Your task to perform on an android device: delete location history Image 0: 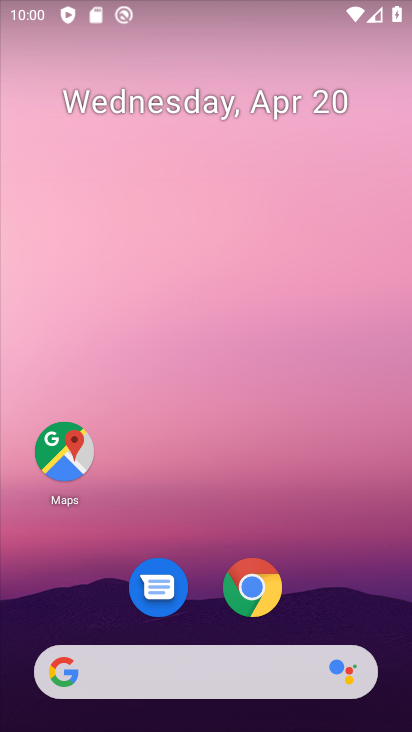
Step 0: click (71, 458)
Your task to perform on an android device: delete location history Image 1: 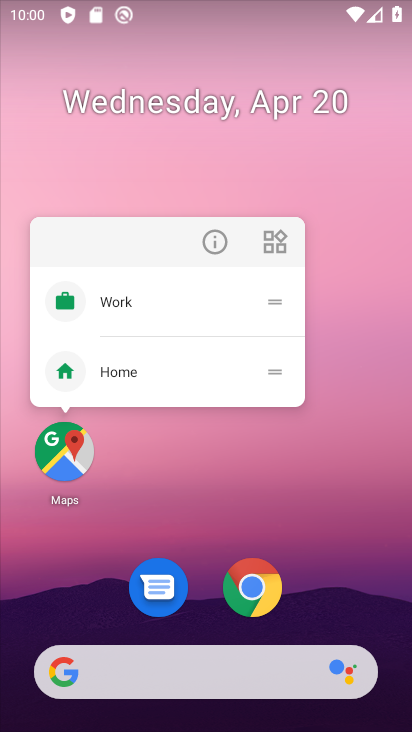
Step 1: click (85, 444)
Your task to perform on an android device: delete location history Image 2: 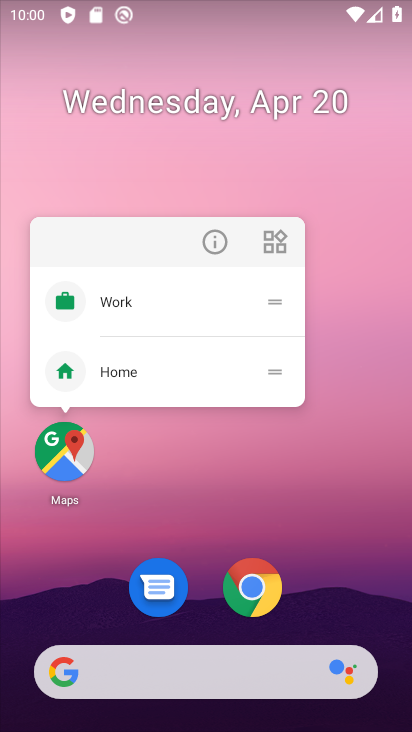
Step 2: click (60, 475)
Your task to perform on an android device: delete location history Image 3: 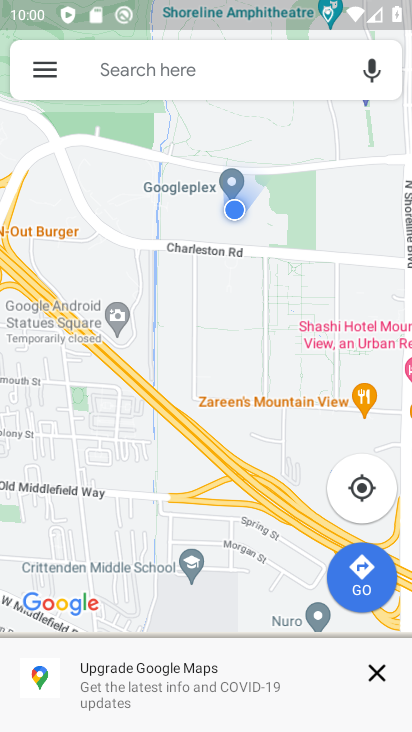
Step 3: click (380, 676)
Your task to perform on an android device: delete location history Image 4: 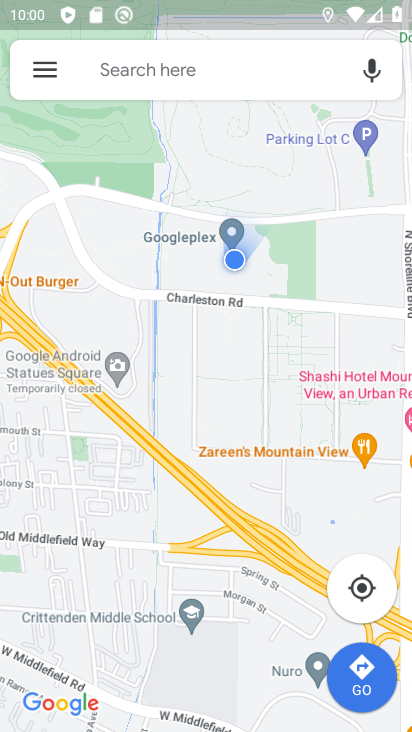
Step 4: click (55, 69)
Your task to perform on an android device: delete location history Image 5: 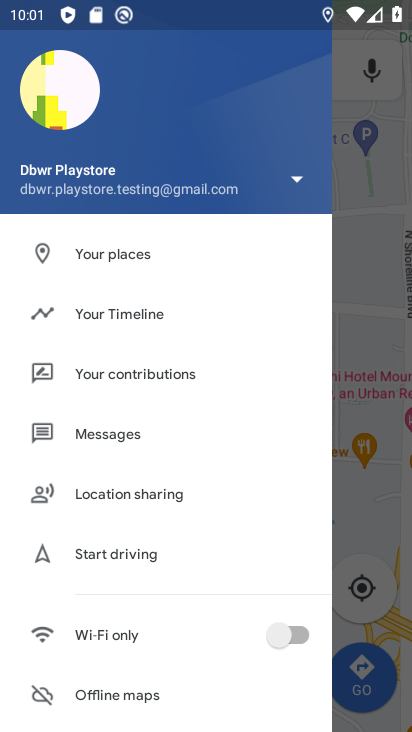
Step 5: drag from (153, 627) to (82, 83)
Your task to perform on an android device: delete location history Image 6: 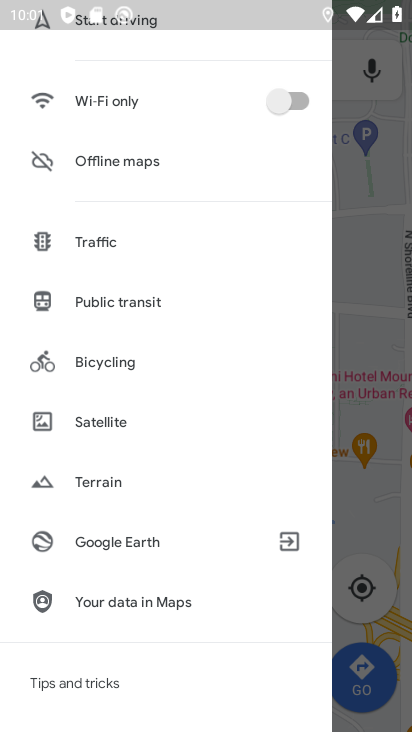
Step 6: drag from (189, 607) to (65, 192)
Your task to perform on an android device: delete location history Image 7: 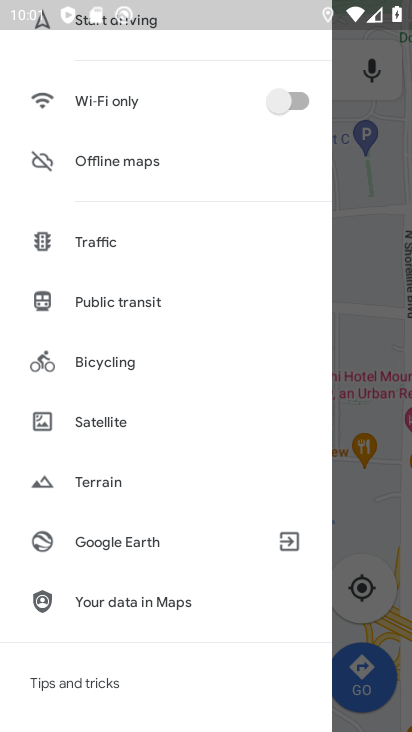
Step 7: drag from (151, 565) to (90, 133)
Your task to perform on an android device: delete location history Image 8: 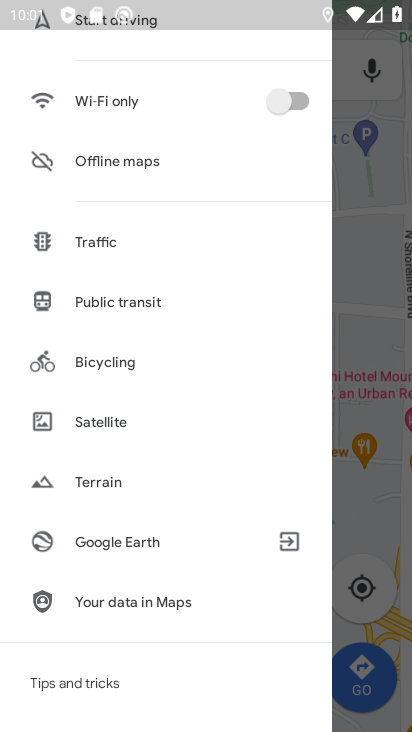
Step 8: drag from (179, 580) to (130, 302)
Your task to perform on an android device: delete location history Image 9: 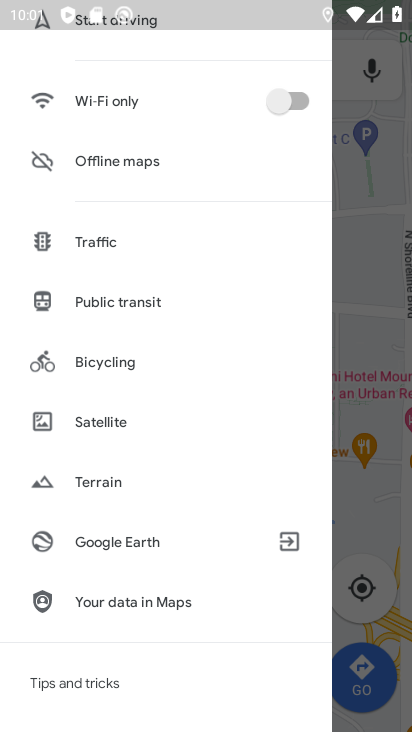
Step 9: press back button
Your task to perform on an android device: delete location history Image 10: 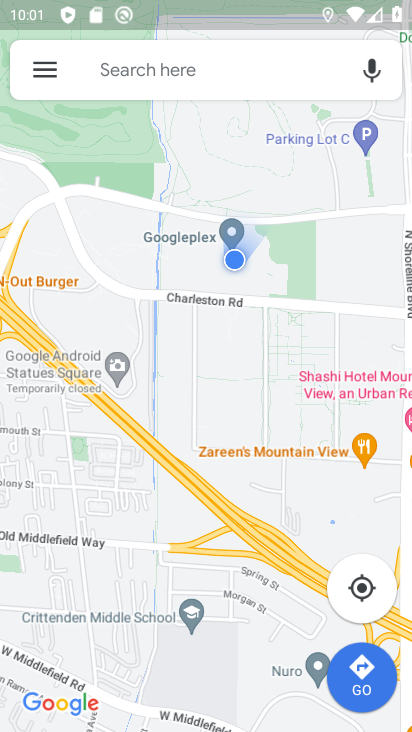
Step 10: click (39, 72)
Your task to perform on an android device: delete location history Image 11: 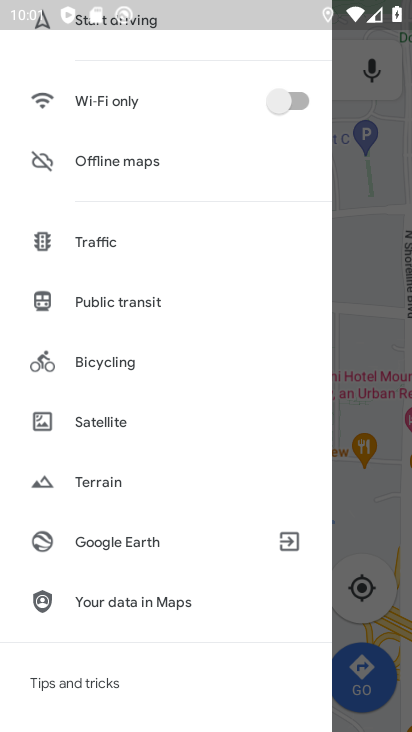
Step 11: drag from (192, 351) to (191, 509)
Your task to perform on an android device: delete location history Image 12: 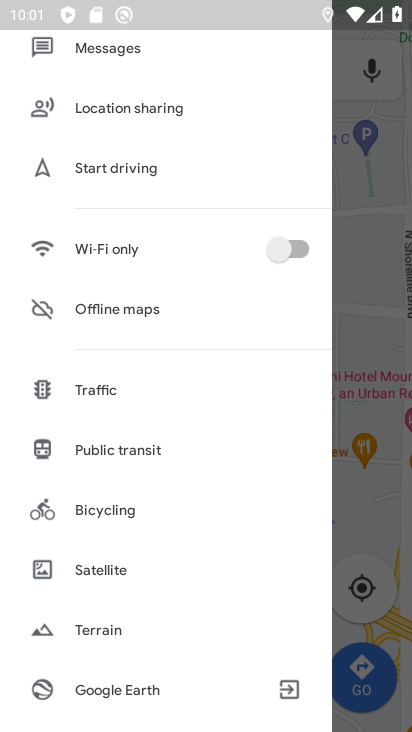
Step 12: drag from (175, 238) to (244, 679)
Your task to perform on an android device: delete location history Image 13: 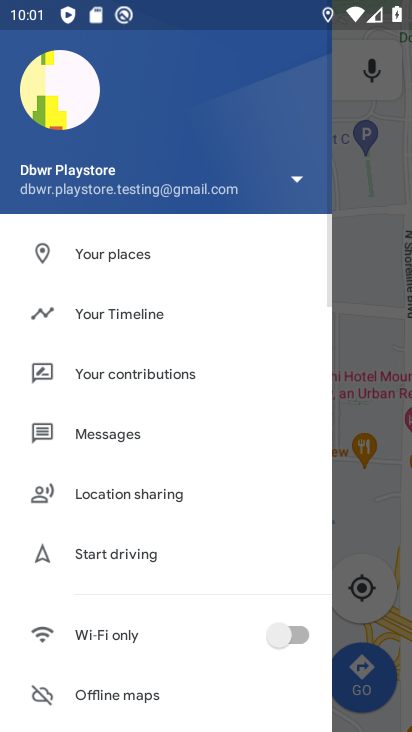
Step 13: click (131, 315)
Your task to perform on an android device: delete location history Image 14: 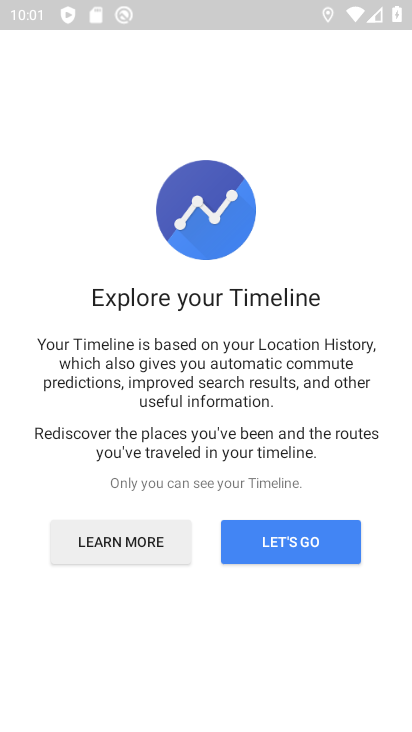
Step 14: click (303, 557)
Your task to perform on an android device: delete location history Image 15: 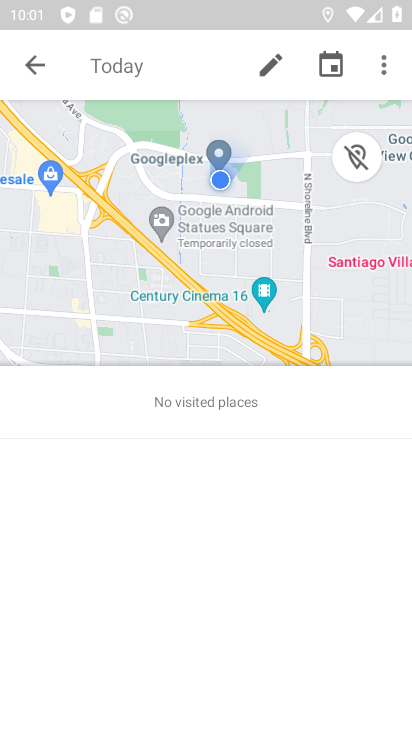
Step 15: click (384, 69)
Your task to perform on an android device: delete location history Image 16: 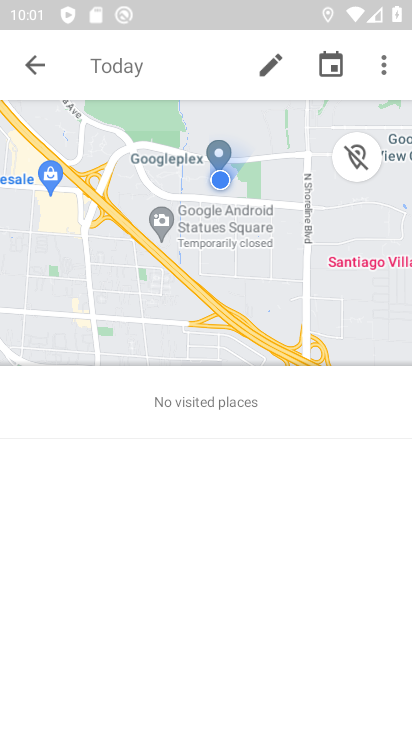
Step 16: click (385, 60)
Your task to perform on an android device: delete location history Image 17: 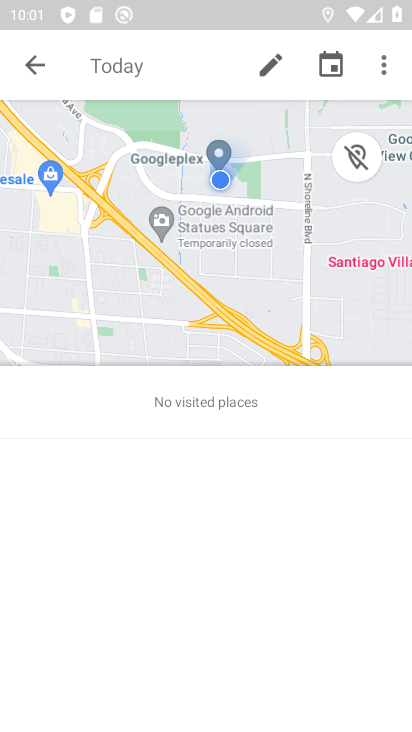
Step 17: click (384, 65)
Your task to perform on an android device: delete location history Image 18: 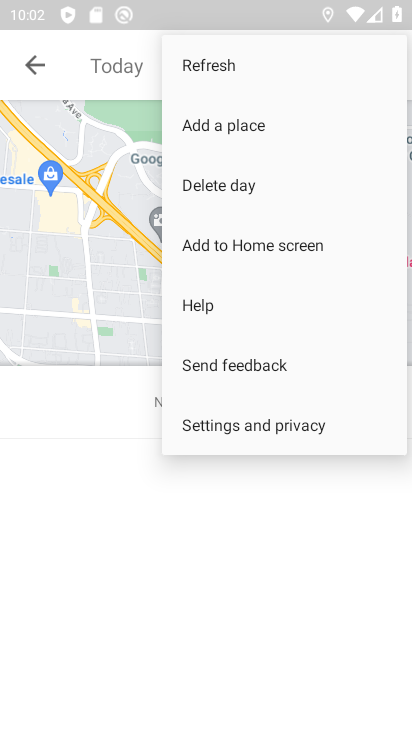
Step 18: click (242, 426)
Your task to perform on an android device: delete location history Image 19: 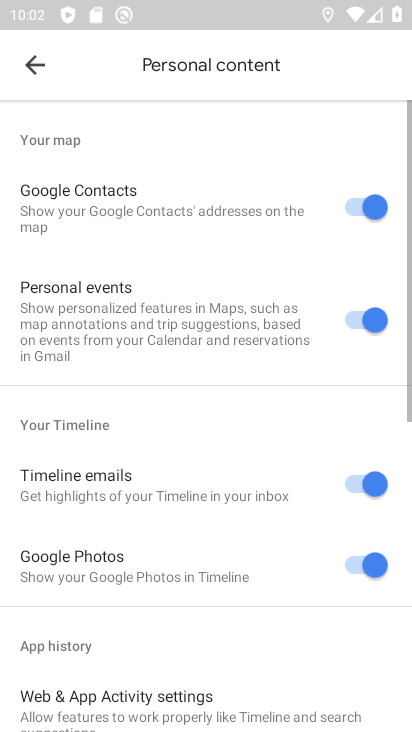
Step 19: click (265, 412)
Your task to perform on an android device: delete location history Image 20: 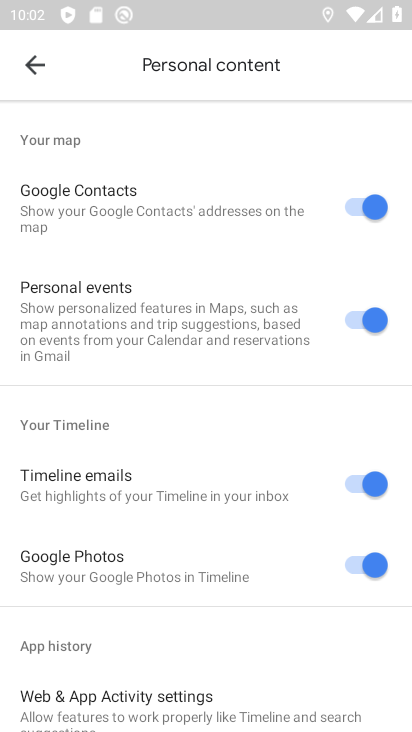
Step 20: drag from (194, 490) to (198, 189)
Your task to perform on an android device: delete location history Image 21: 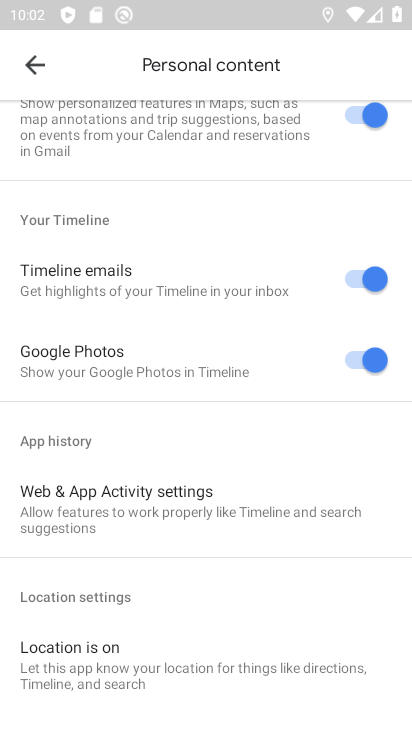
Step 21: drag from (217, 583) to (203, 199)
Your task to perform on an android device: delete location history Image 22: 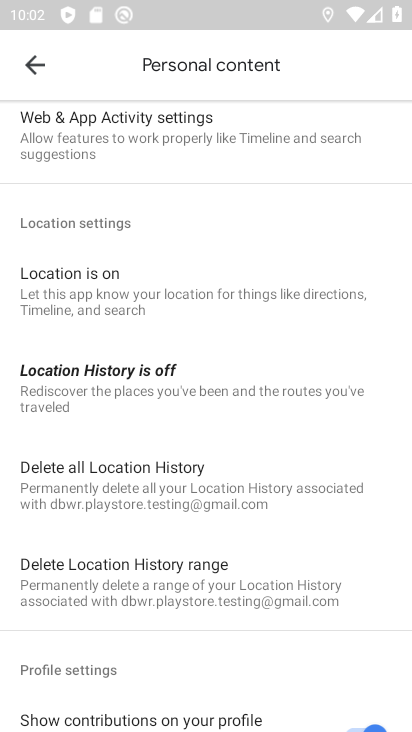
Step 22: click (159, 500)
Your task to perform on an android device: delete location history Image 23: 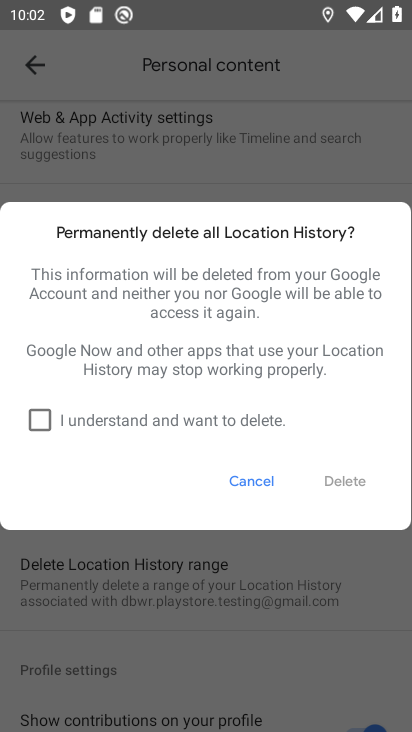
Step 23: click (40, 419)
Your task to perform on an android device: delete location history Image 24: 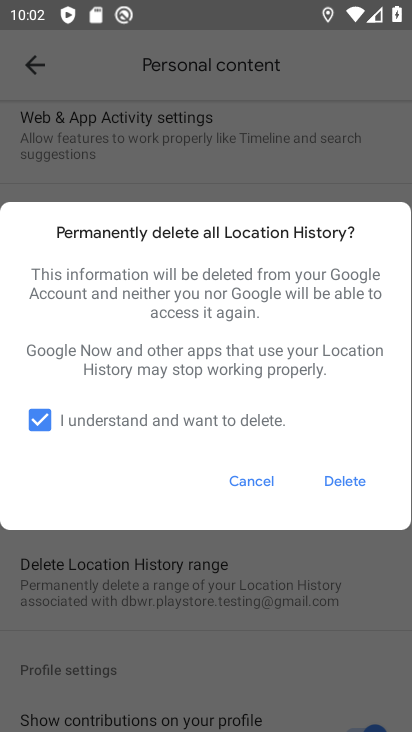
Step 24: click (350, 482)
Your task to perform on an android device: delete location history Image 25: 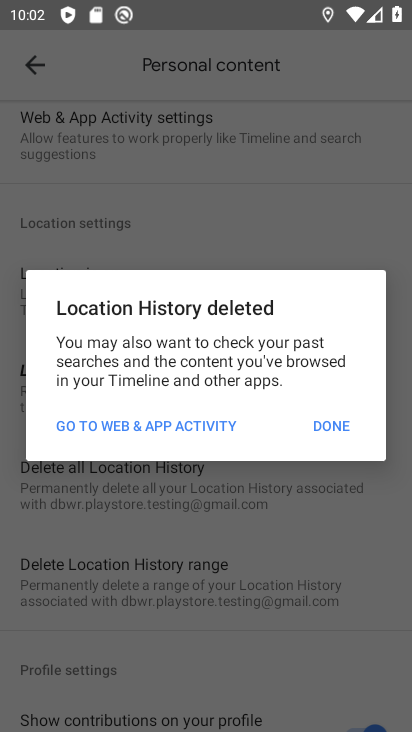
Step 25: task complete